Your task to perform on an android device: What's the weather going to be this weekend? Image 0: 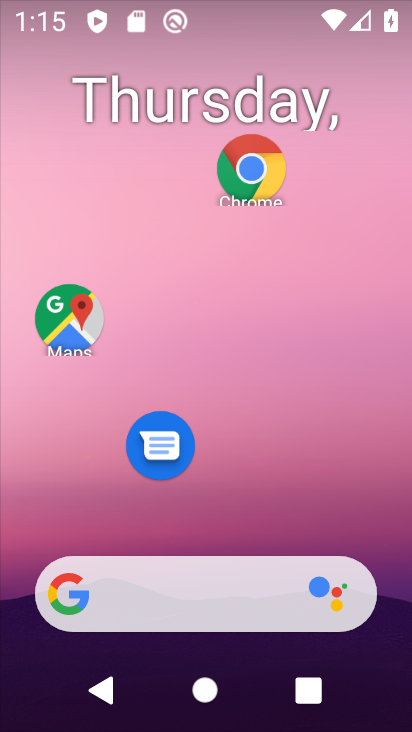
Step 0: drag from (216, 639) to (310, 123)
Your task to perform on an android device: What's the weather going to be this weekend? Image 1: 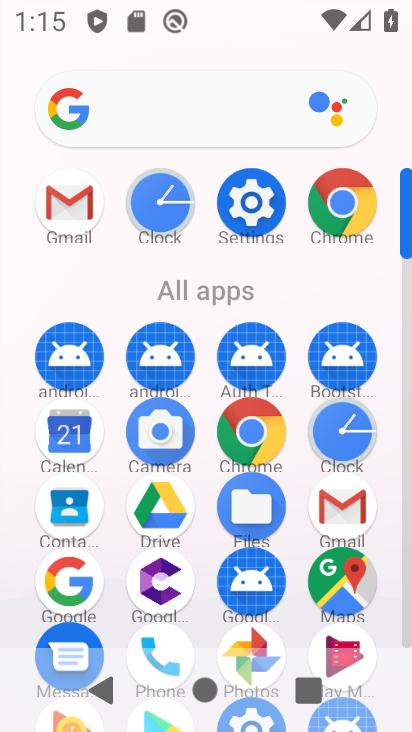
Step 1: click (143, 125)
Your task to perform on an android device: What's the weather going to be this weekend? Image 2: 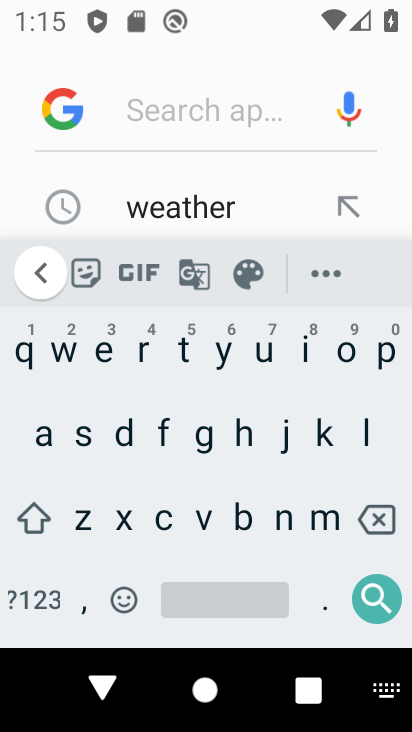
Step 2: click (145, 198)
Your task to perform on an android device: What's the weather going to be this weekend? Image 3: 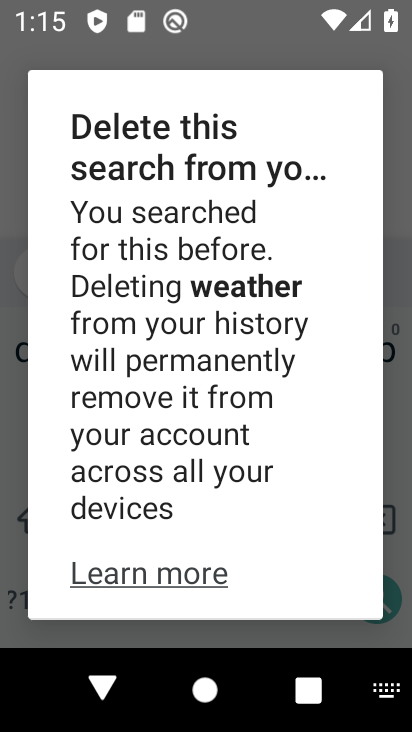
Step 3: press back button
Your task to perform on an android device: What's the weather going to be this weekend? Image 4: 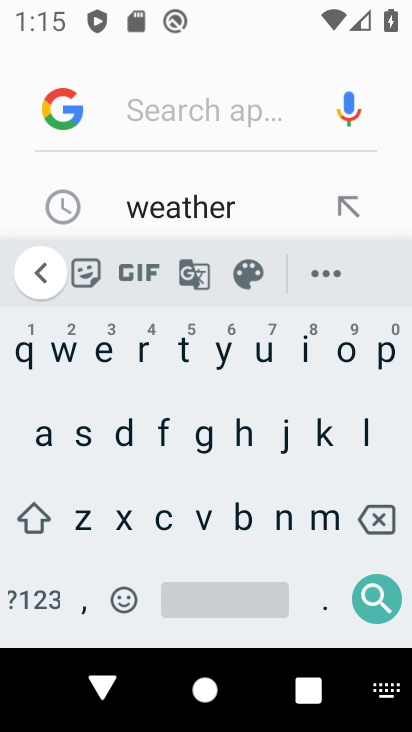
Step 4: click (231, 210)
Your task to perform on an android device: What's the weather going to be this weekend? Image 5: 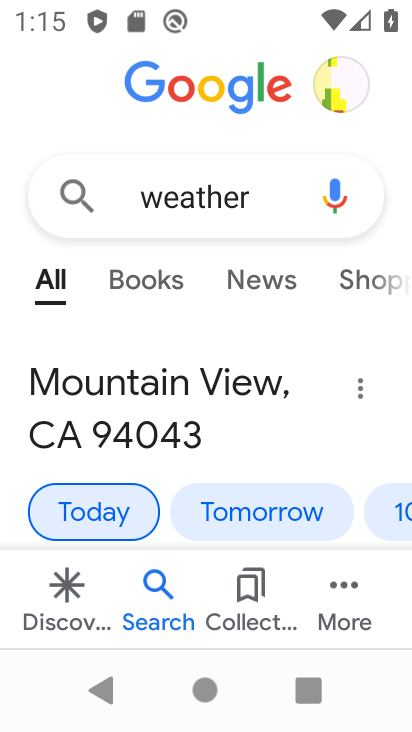
Step 5: drag from (195, 404) to (207, 304)
Your task to perform on an android device: What's the weather going to be this weekend? Image 6: 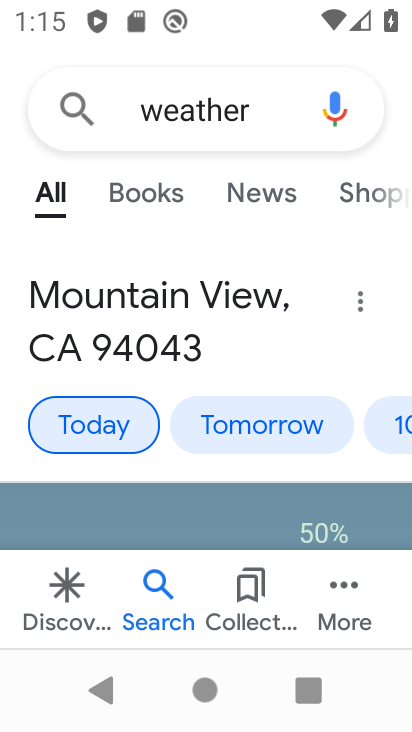
Step 6: click (391, 432)
Your task to perform on an android device: What's the weather going to be this weekend? Image 7: 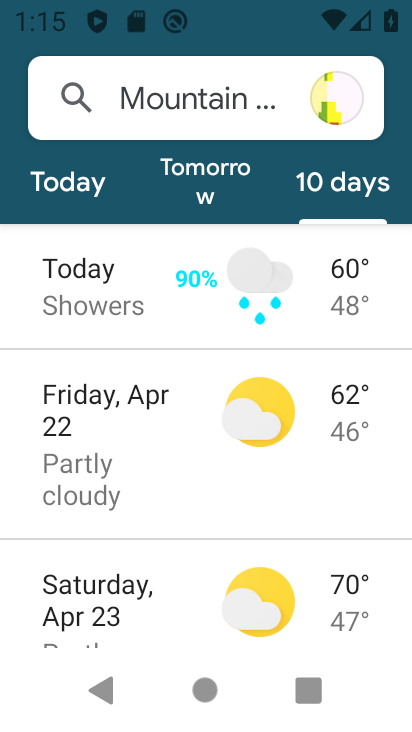
Step 7: task complete